Your task to perform on an android device: Open display settings Image 0: 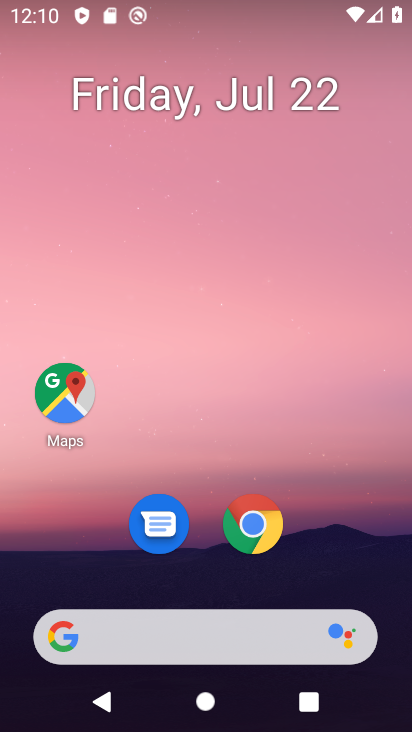
Step 0: drag from (168, 634) to (289, 51)
Your task to perform on an android device: Open display settings Image 1: 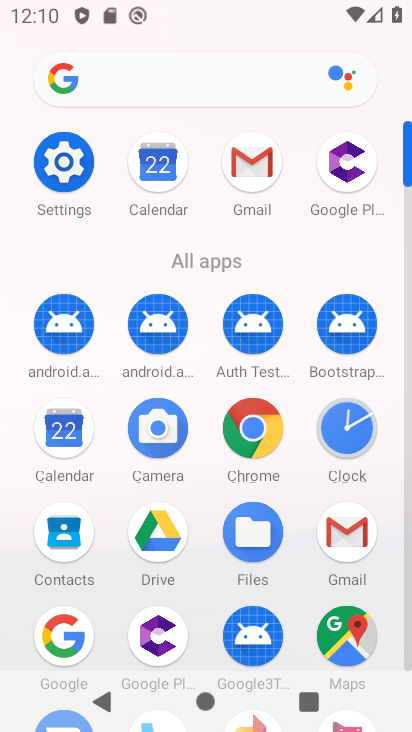
Step 1: click (79, 172)
Your task to perform on an android device: Open display settings Image 2: 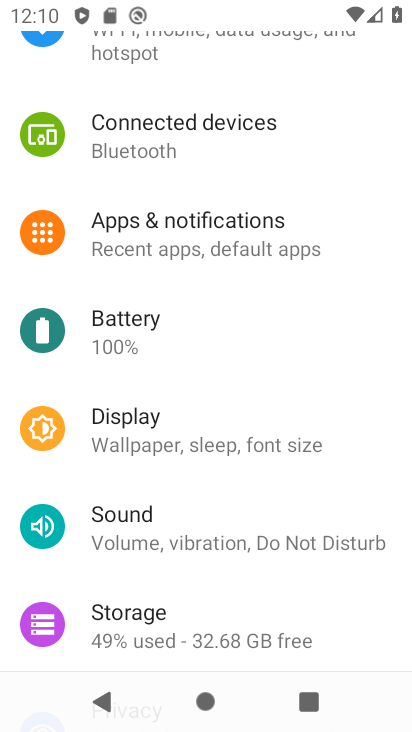
Step 2: click (131, 424)
Your task to perform on an android device: Open display settings Image 3: 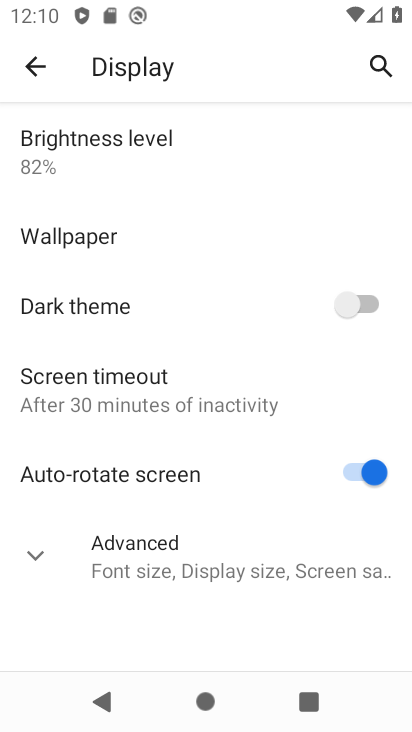
Step 3: task complete